Your task to perform on an android device: Set the phone to "Do not disturb". Image 0: 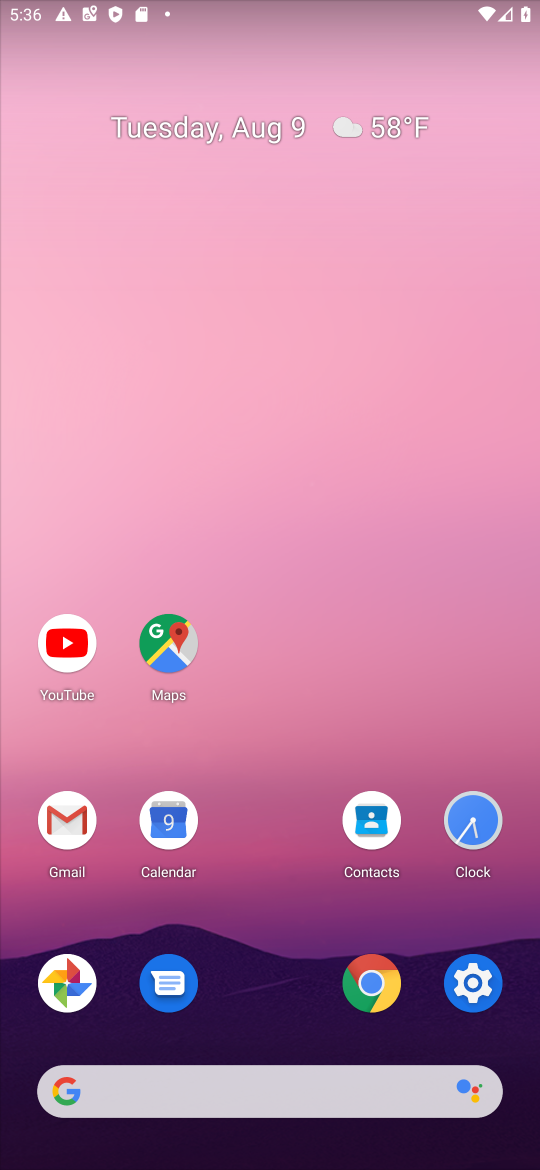
Step 0: click (470, 979)
Your task to perform on an android device: Set the phone to "Do not disturb". Image 1: 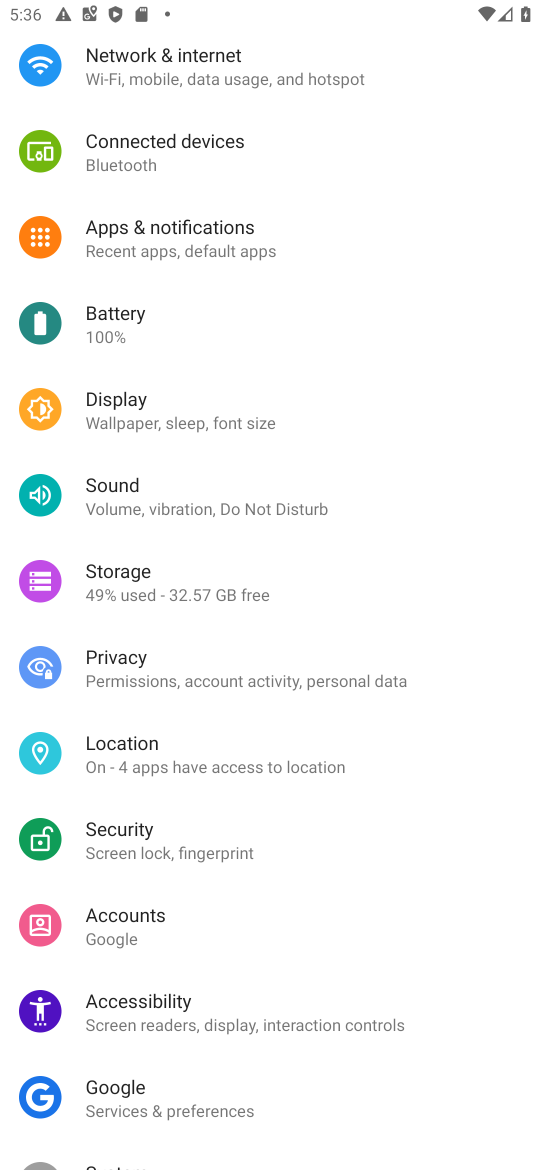
Step 1: click (94, 483)
Your task to perform on an android device: Set the phone to "Do not disturb". Image 2: 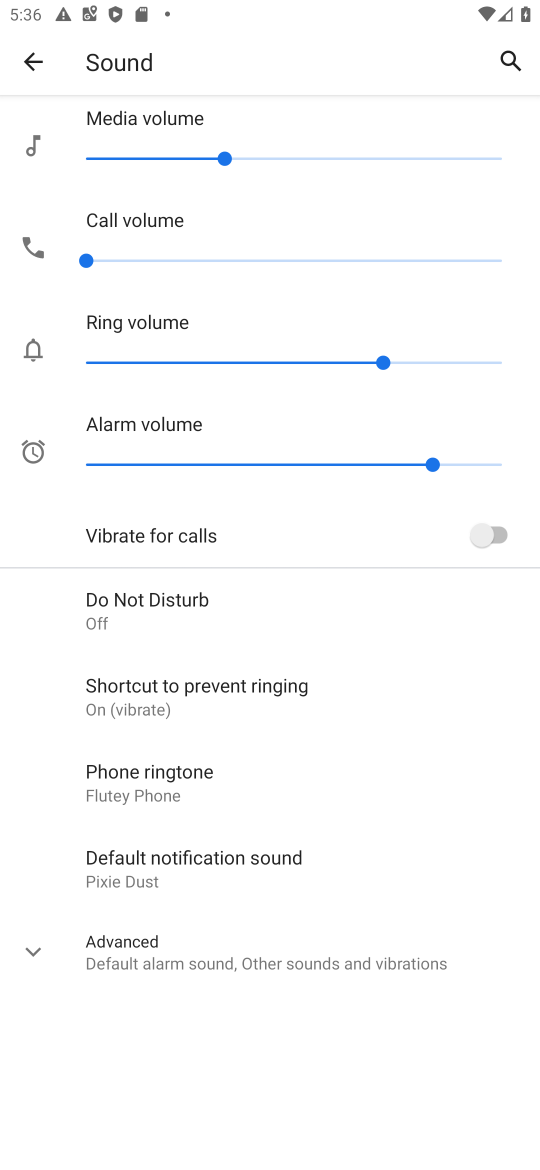
Step 2: click (175, 591)
Your task to perform on an android device: Set the phone to "Do not disturb". Image 3: 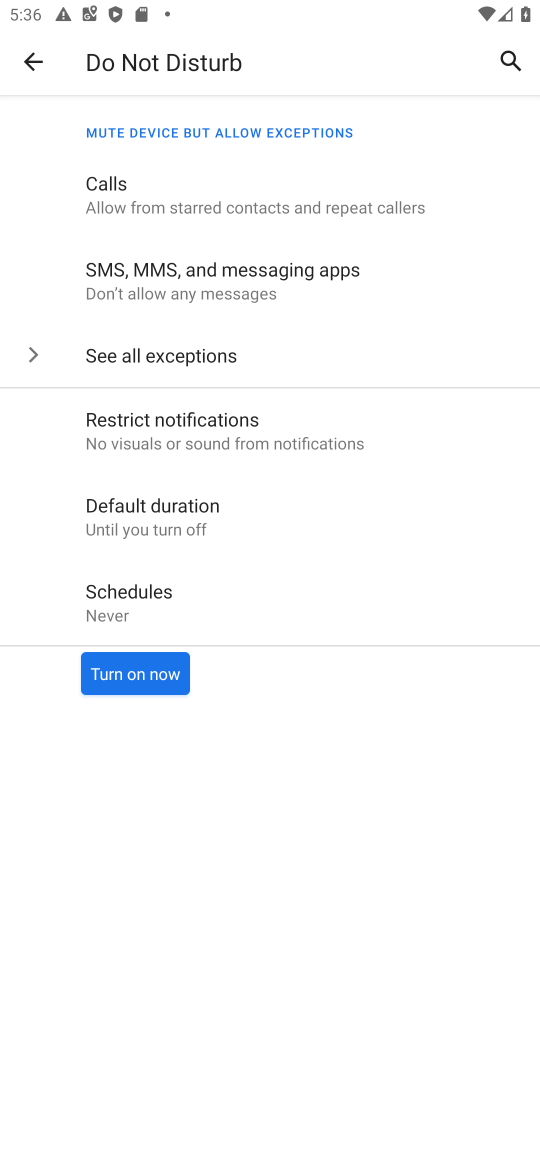
Step 3: click (137, 678)
Your task to perform on an android device: Set the phone to "Do not disturb". Image 4: 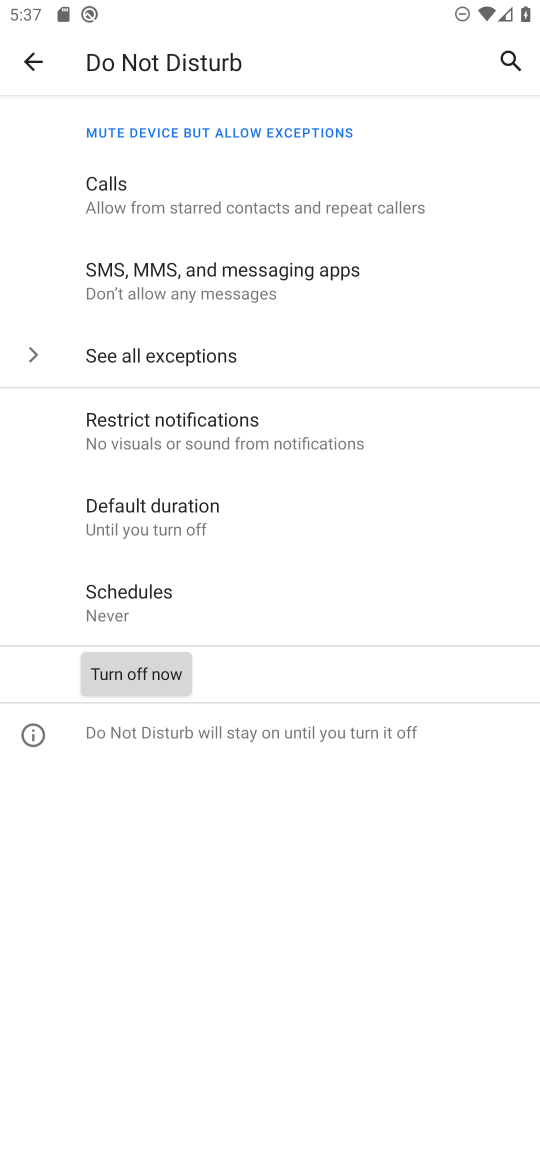
Step 4: task complete